Your task to perform on an android device: turn notification dots on Image 0: 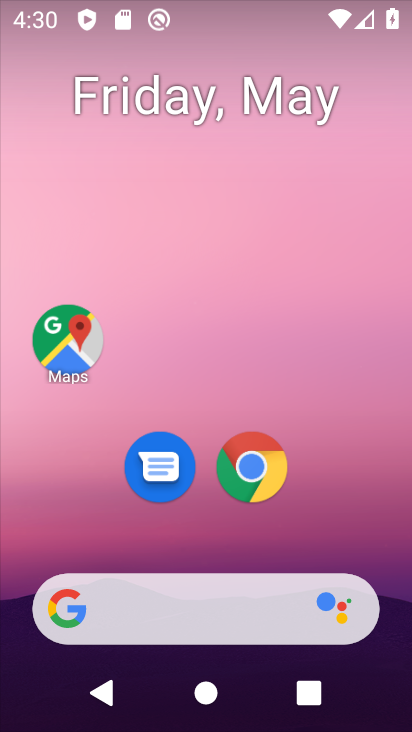
Step 0: drag from (334, 500) to (277, 137)
Your task to perform on an android device: turn notification dots on Image 1: 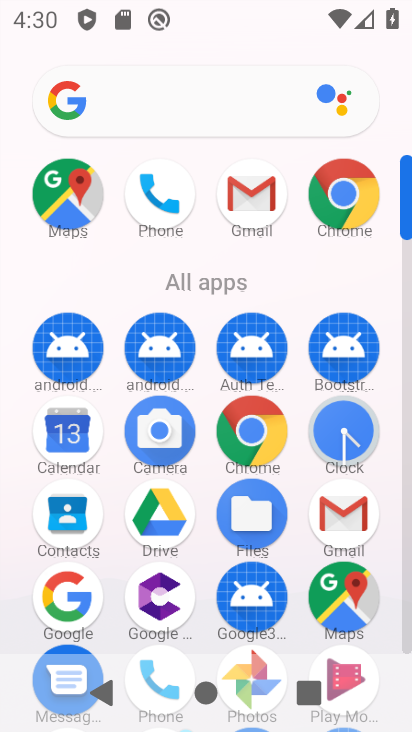
Step 1: drag from (298, 537) to (319, 202)
Your task to perform on an android device: turn notification dots on Image 2: 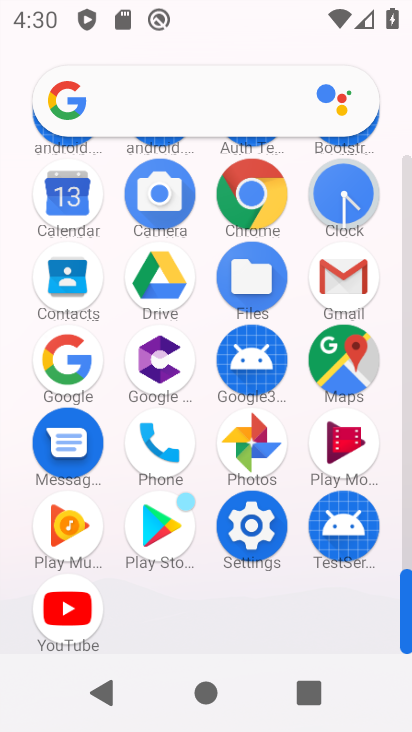
Step 2: click (249, 552)
Your task to perform on an android device: turn notification dots on Image 3: 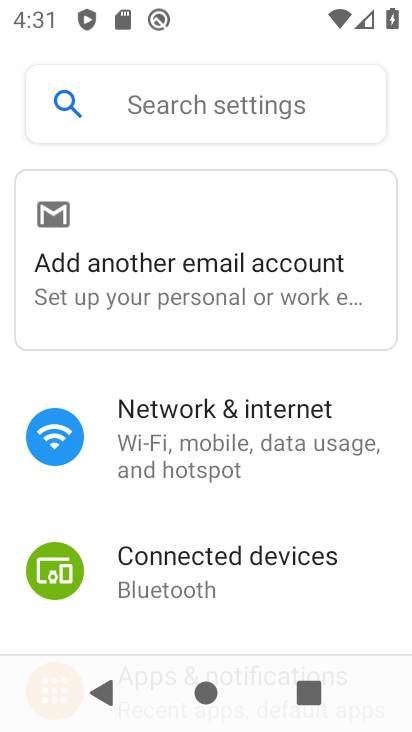
Step 3: drag from (288, 560) to (313, 178)
Your task to perform on an android device: turn notification dots on Image 4: 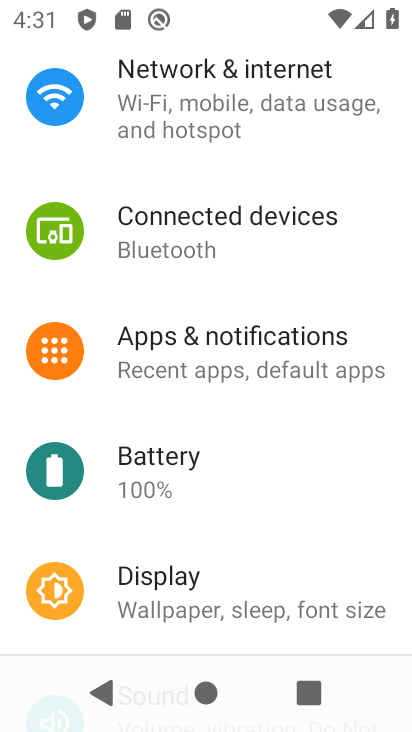
Step 4: click (251, 337)
Your task to perform on an android device: turn notification dots on Image 5: 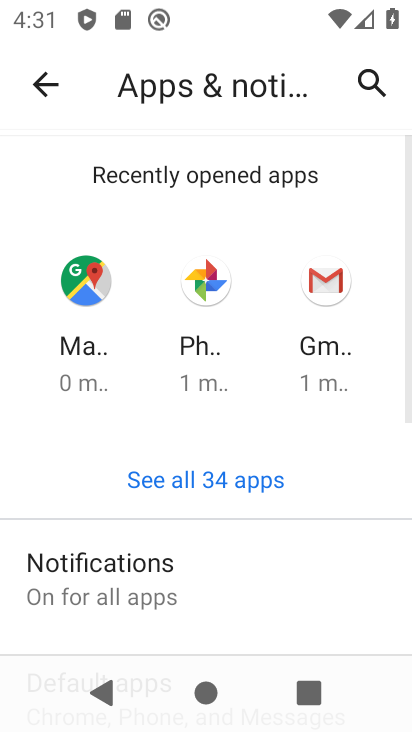
Step 5: drag from (266, 561) to (294, 289)
Your task to perform on an android device: turn notification dots on Image 6: 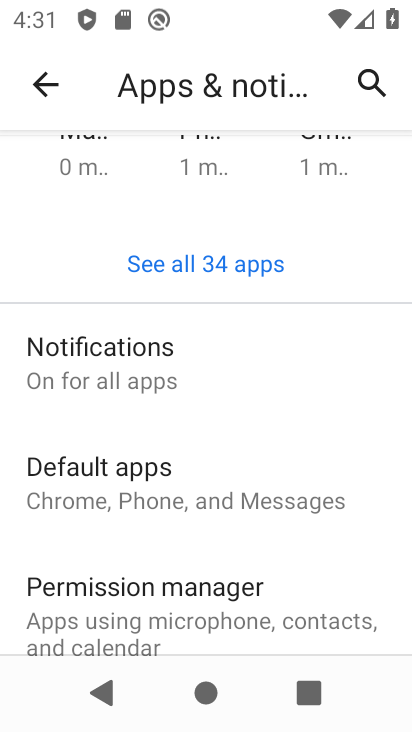
Step 6: click (135, 387)
Your task to perform on an android device: turn notification dots on Image 7: 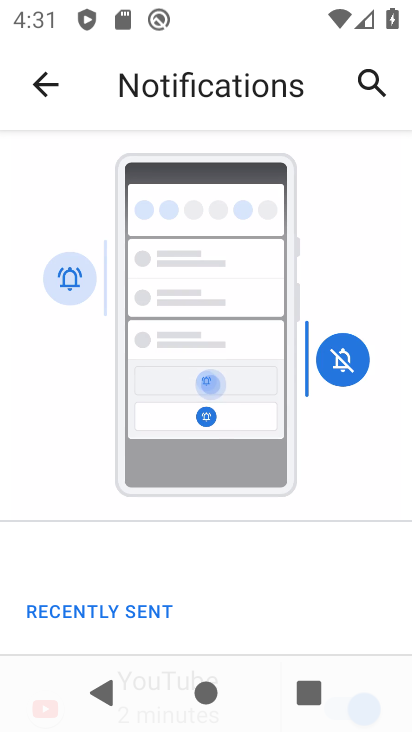
Step 7: drag from (271, 598) to (331, 98)
Your task to perform on an android device: turn notification dots on Image 8: 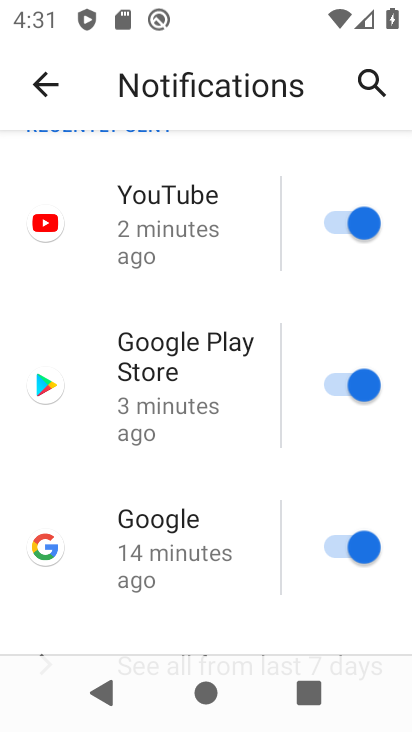
Step 8: drag from (259, 547) to (319, 123)
Your task to perform on an android device: turn notification dots on Image 9: 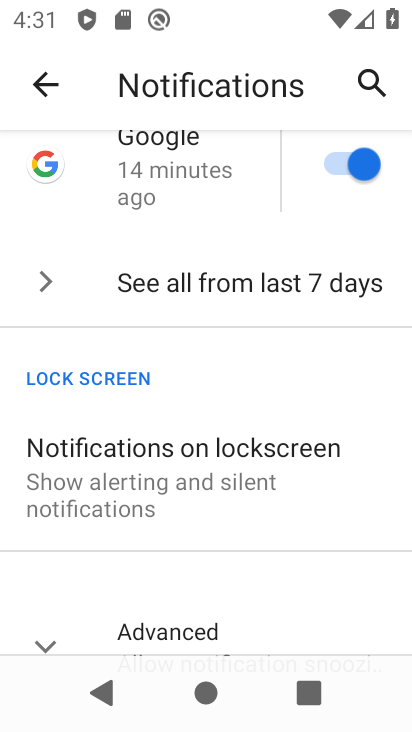
Step 9: drag from (179, 478) to (319, 118)
Your task to perform on an android device: turn notification dots on Image 10: 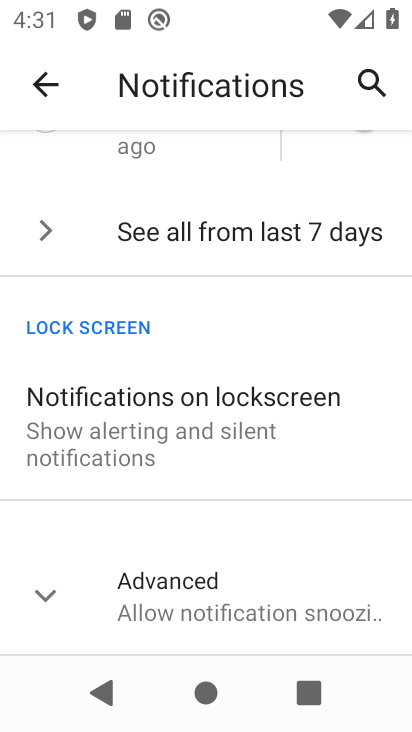
Step 10: click (179, 617)
Your task to perform on an android device: turn notification dots on Image 11: 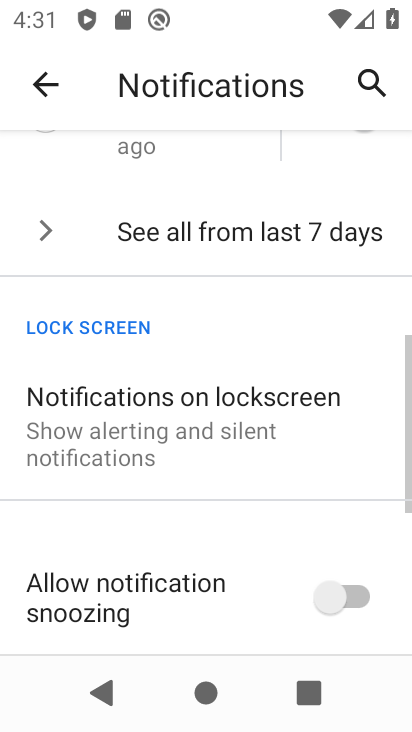
Step 11: task complete